Your task to perform on an android device: change alarm snooze length Image 0: 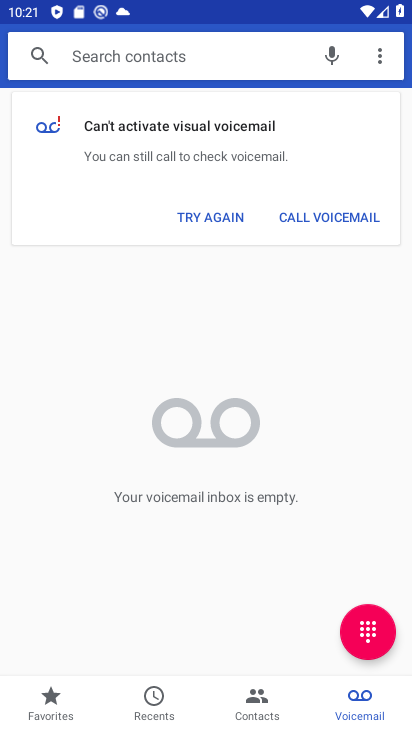
Step 0: press home button
Your task to perform on an android device: change alarm snooze length Image 1: 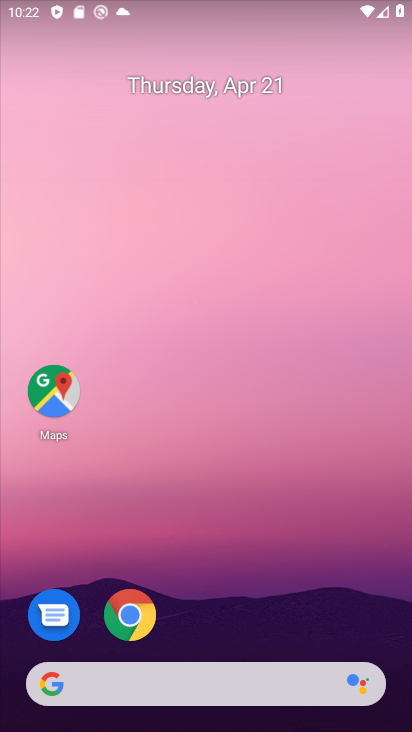
Step 1: drag from (247, 628) to (146, 3)
Your task to perform on an android device: change alarm snooze length Image 2: 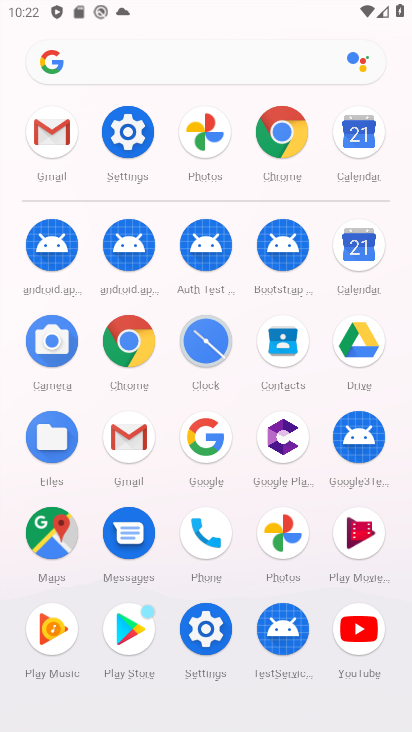
Step 2: click (205, 339)
Your task to perform on an android device: change alarm snooze length Image 3: 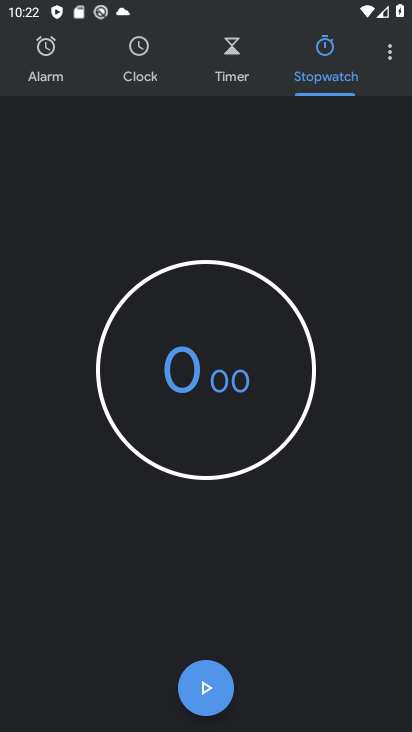
Step 3: click (389, 53)
Your task to perform on an android device: change alarm snooze length Image 4: 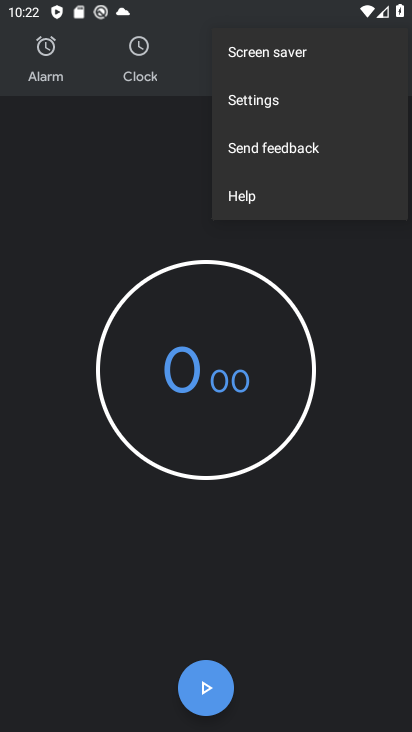
Step 4: click (287, 105)
Your task to perform on an android device: change alarm snooze length Image 5: 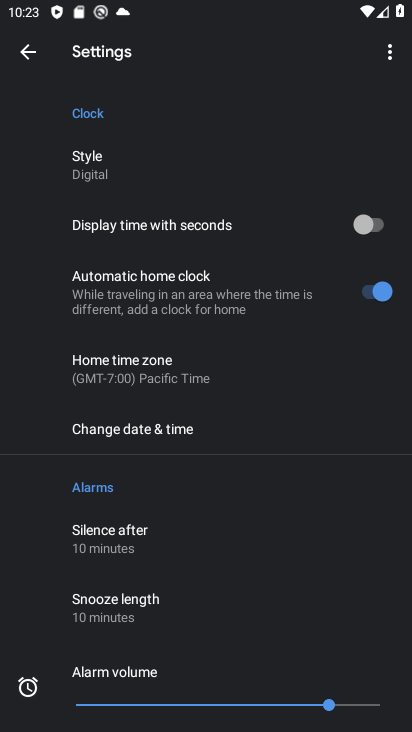
Step 5: click (171, 612)
Your task to perform on an android device: change alarm snooze length Image 6: 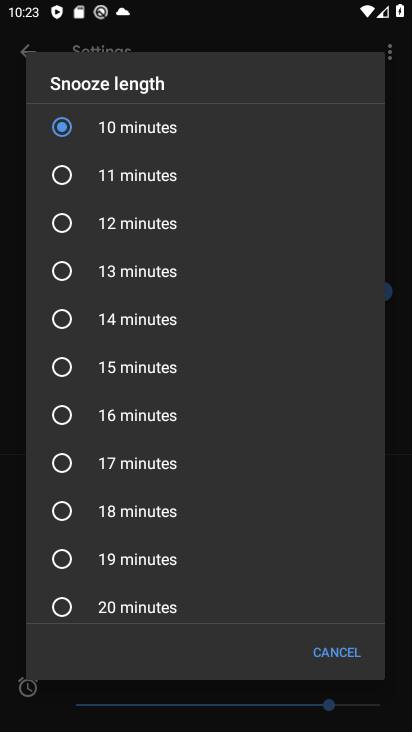
Step 6: click (61, 362)
Your task to perform on an android device: change alarm snooze length Image 7: 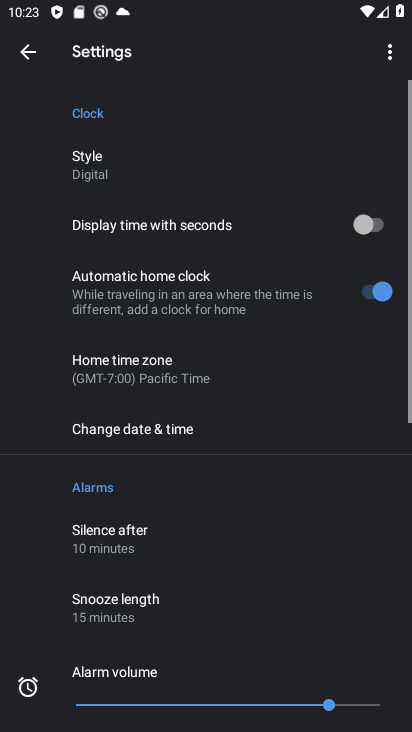
Step 7: task complete